Your task to perform on an android device: turn off location Image 0: 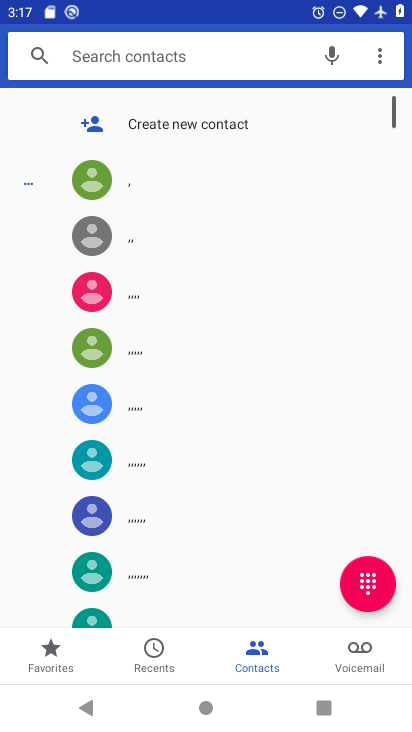
Step 0: press home button
Your task to perform on an android device: turn off location Image 1: 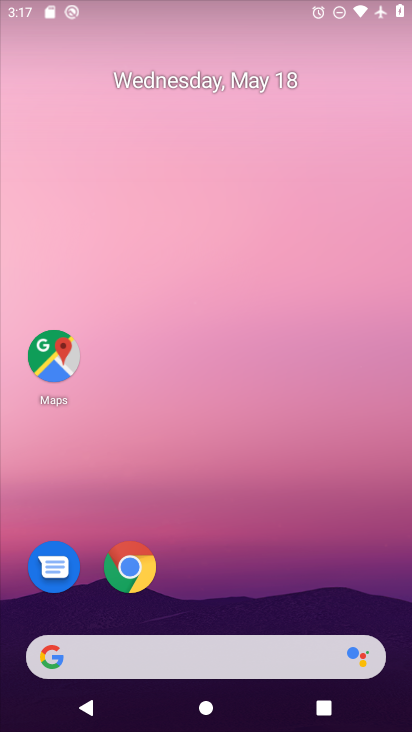
Step 1: drag from (244, 595) to (297, 133)
Your task to perform on an android device: turn off location Image 2: 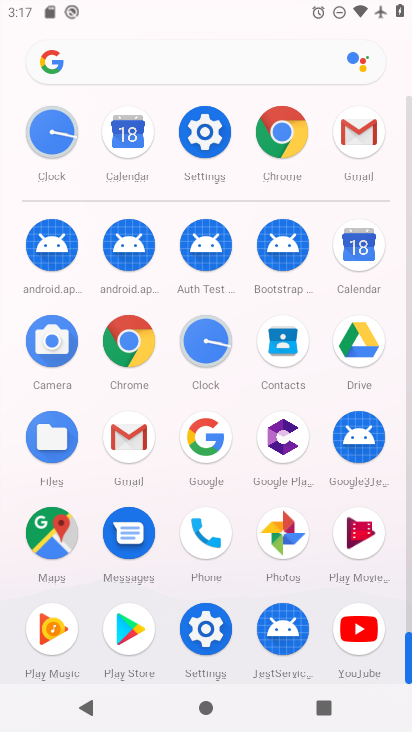
Step 2: click (209, 124)
Your task to perform on an android device: turn off location Image 3: 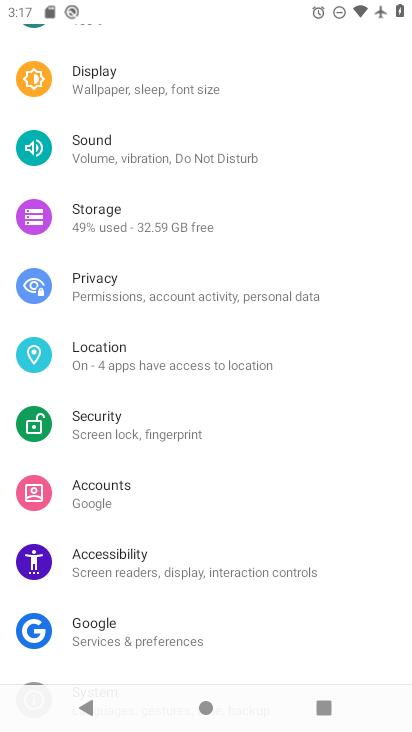
Step 3: click (148, 344)
Your task to perform on an android device: turn off location Image 4: 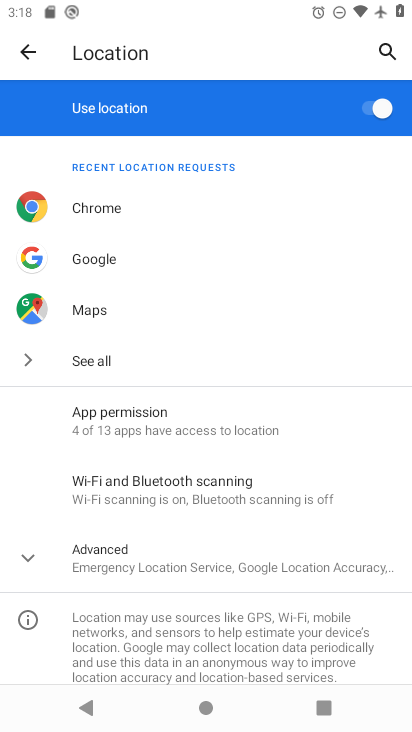
Step 4: click (353, 99)
Your task to perform on an android device: turn off location Image 5: 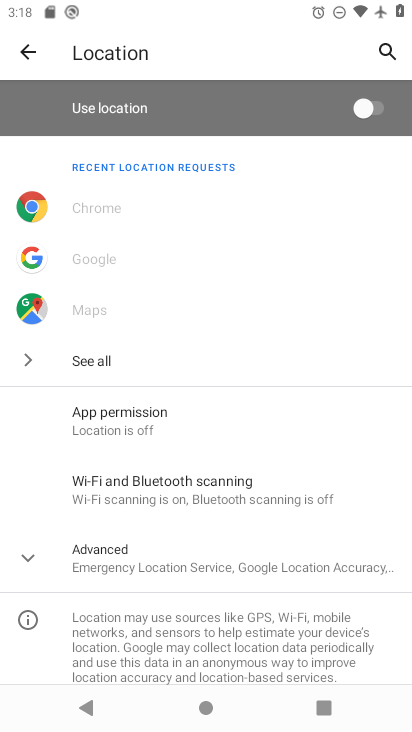
Step 5: task complete